Your task to perform on an android device: Open accessibility settings Image 0: 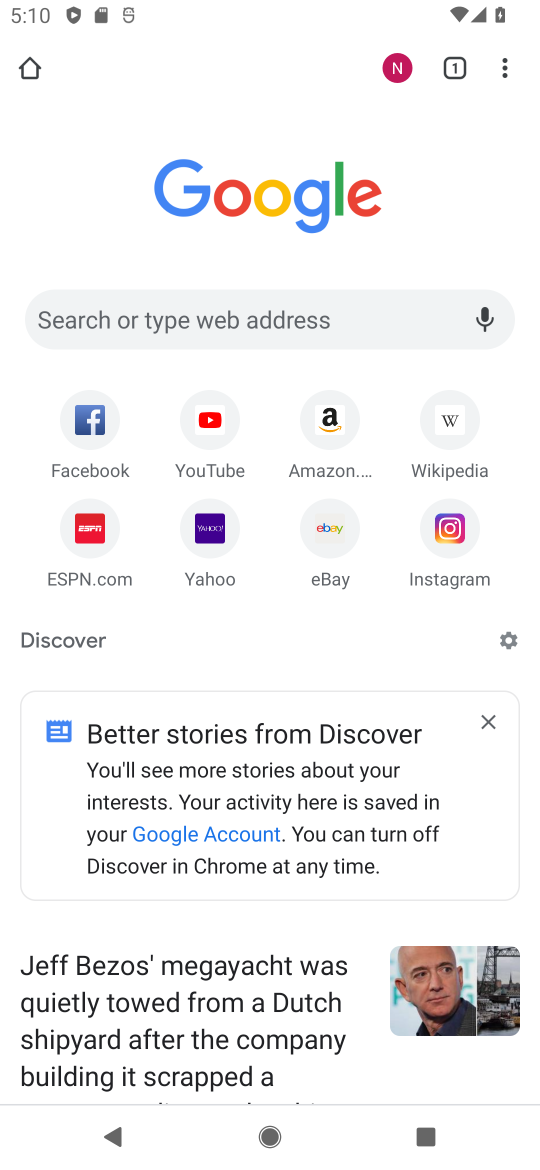
Step 0: press home button
Your task to perform on an android device: Open accessibility settings Image 1: 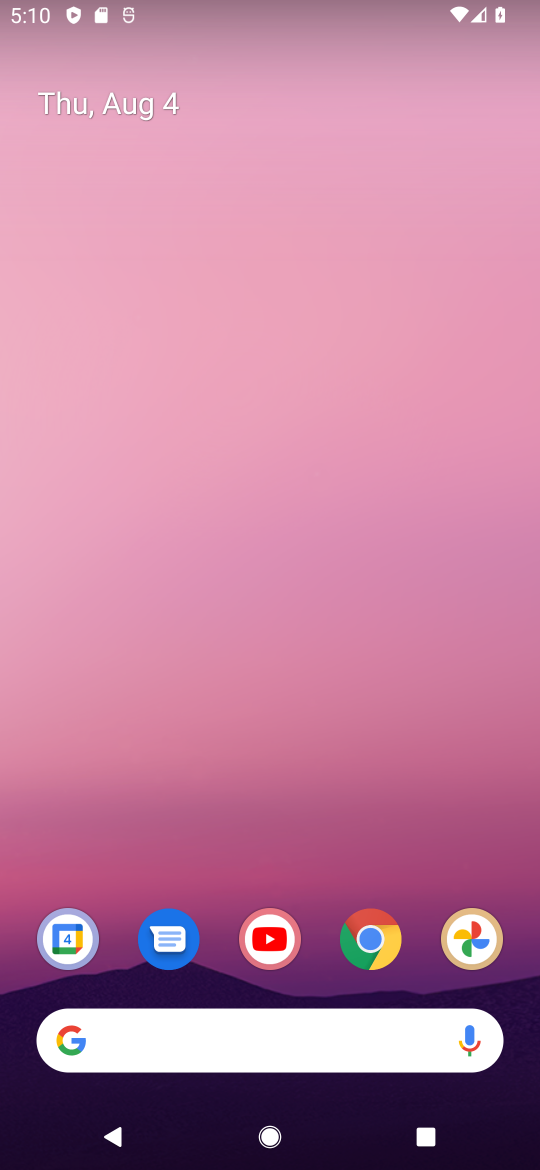
Step 1: drag from (262, 792) to (304, 300)
Your task to perform on an android device: Open accessibility settings Image 2: 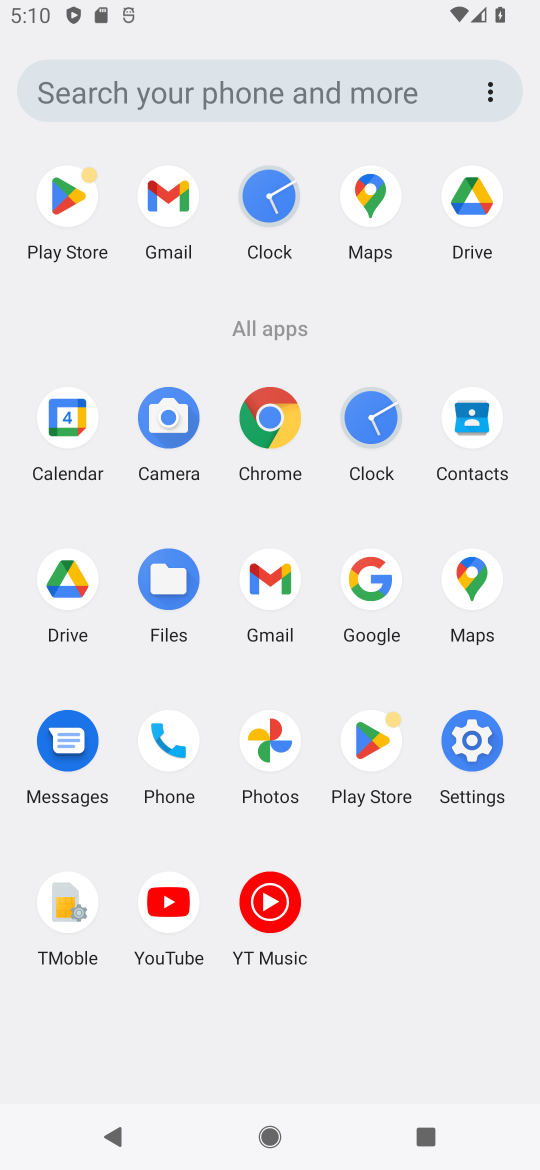
Step 2: click (487, 745)
Your task to perform on an android device: Open accessibility settings Image 3: 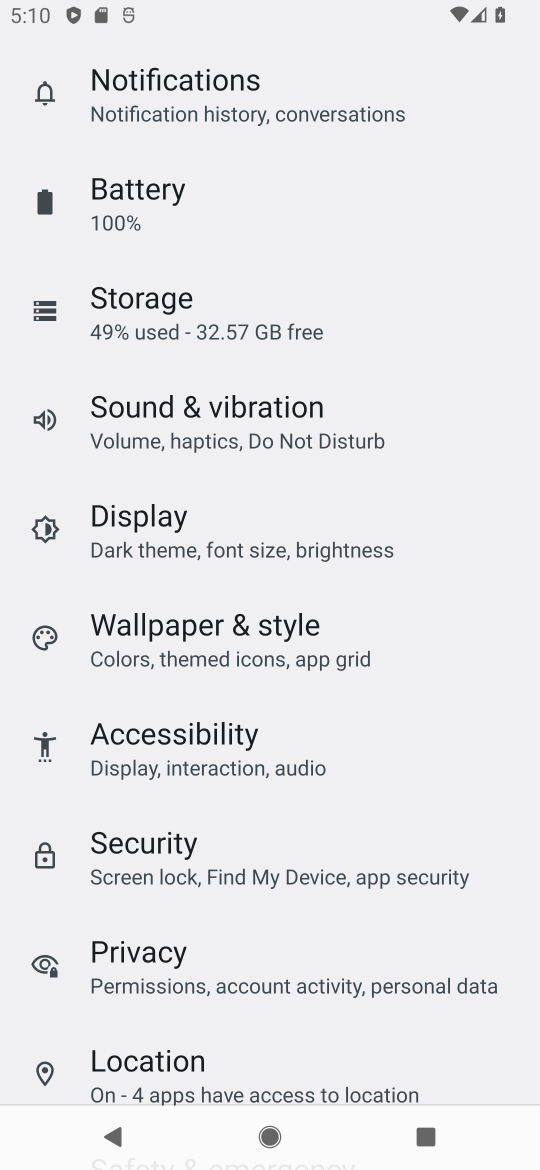
Step 3: task complete